Your task to perform on an android device: Clear the shopping cart on costco.com. Search for "amazon basics triple a" on costco.com, select the first entry, add it to the cart, then select checkout. Image 0: 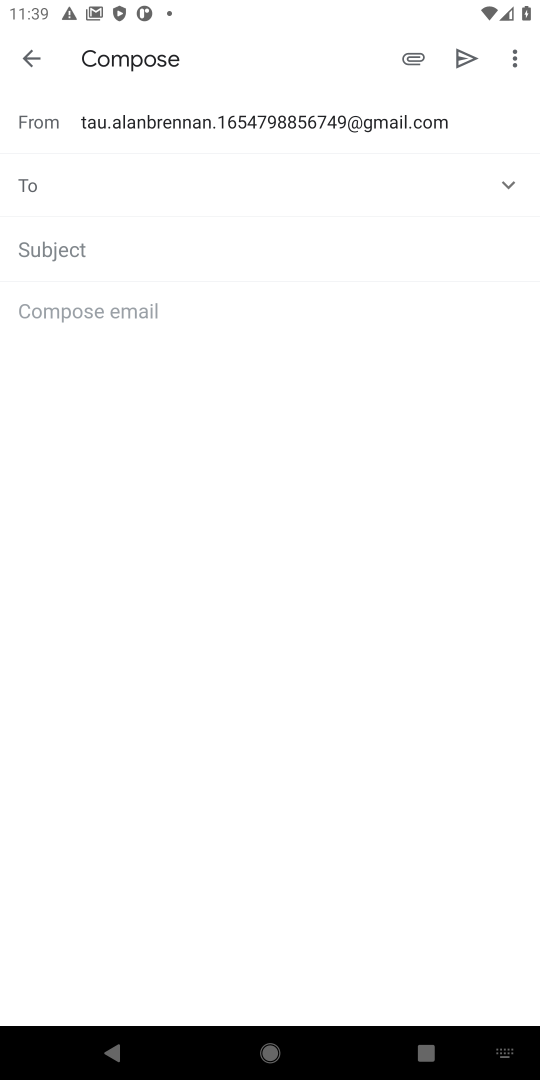
Step 0: press home button
Your task to perform on an android device: Clear the shopping cart on costco.com. Search for "amazon basics triple a" on costco.com, select the first entry, add it to the cart, then select checkout. Image 1: 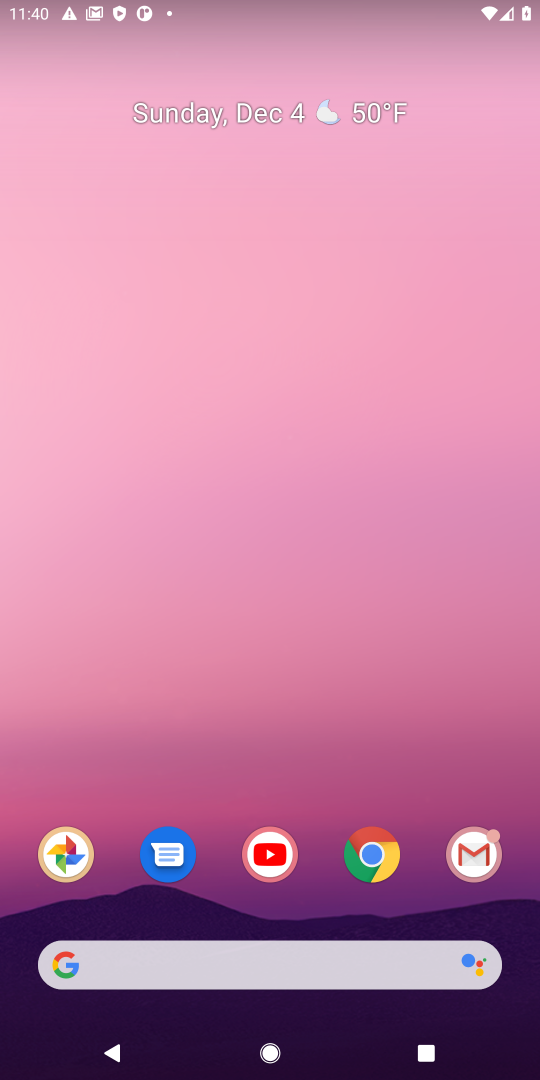
Step 1: click (235, 977)
Your task to perform on an android device: Clear the shopping cart on costco.com. Search for "amazon basics triple a" on costco.com, select the first entry, add it to the cart, then select checkout. Image 2: 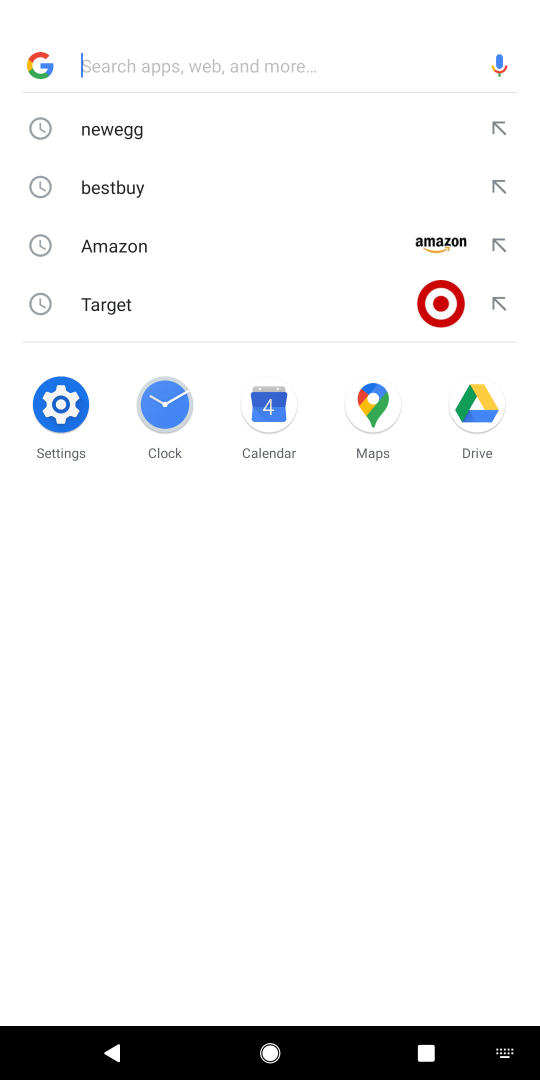
Step 2: type "costco.com"
Your task to perform on an android device: Clear the shopping cart on costco.com. Search for "amazon basics triple a" on costco.com, select the first entry, add it to the cart, then select checkout. Image 3: 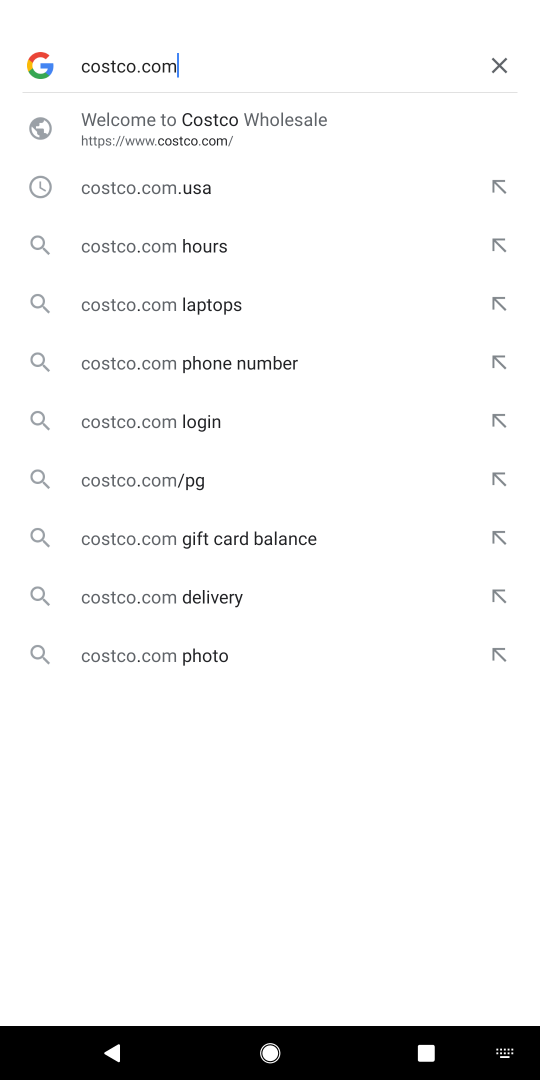
Step 3: click (115, 118)
Your task to perform on an android device: Clear the shopping cart on costco.com. Search for "amazon basics triple a" on costco.com, select the first entry, add it to the cart, then select checkout. Image 4: 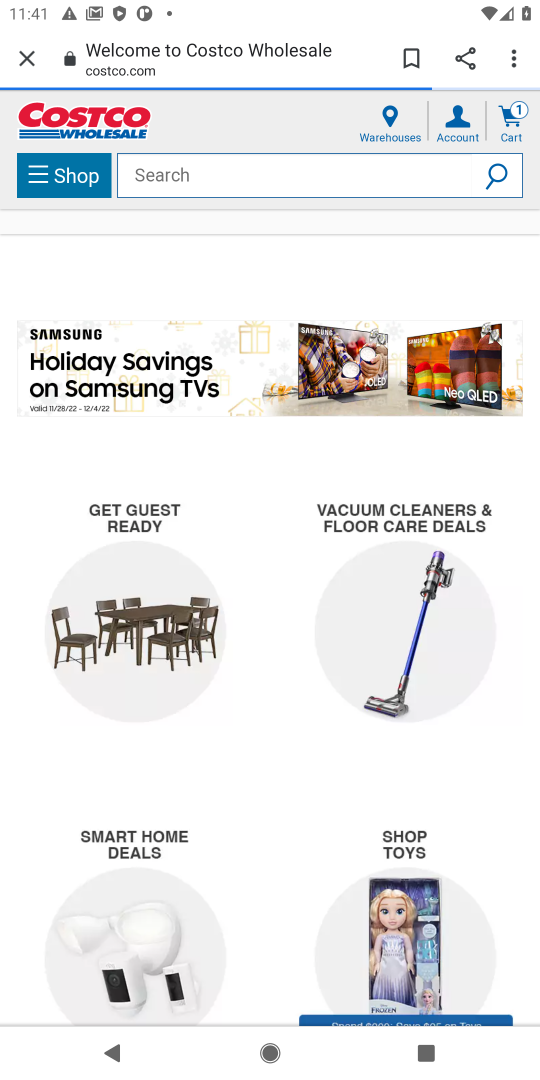
Step 4: task complete